Your task to perform on an android device: open app "eBay: The shopping marketplace" Image 0: 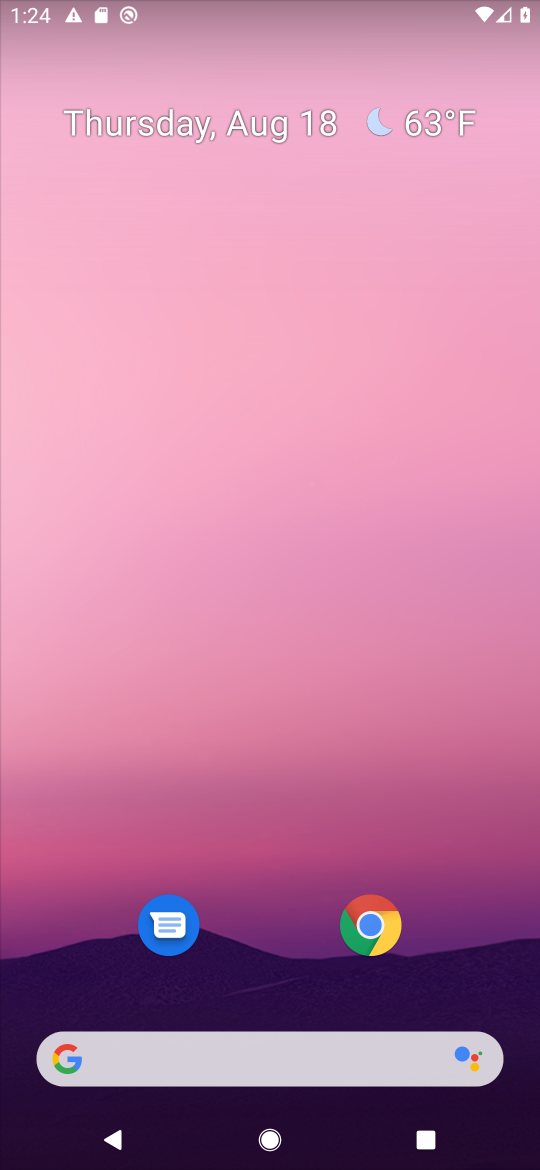
Step 0: click (270, 360)
Your task to perform on an android device: open app "eBay: The shopping marketplace" Image 1: 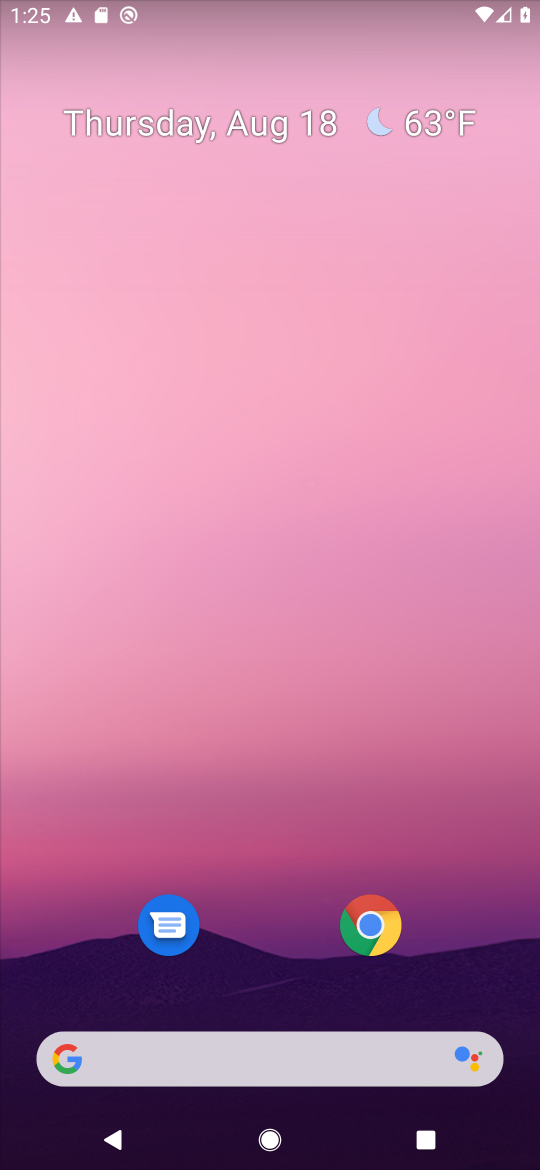
Step 1: drag from (279, 940) to (338, 13)
Your task to perform on an android device: open app "eBay: The shopping marketplace" Image 2: 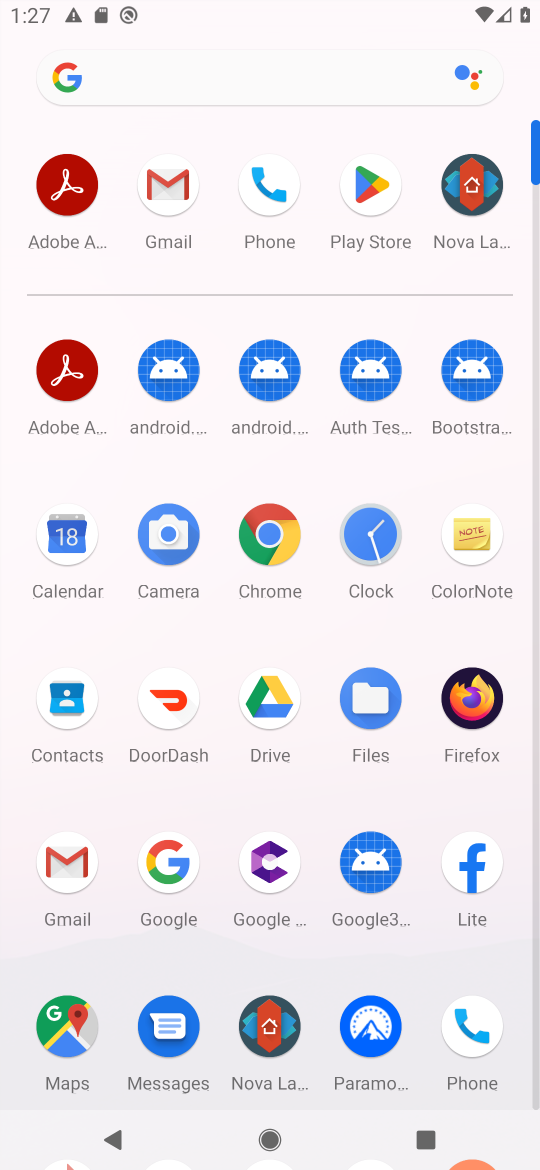
Step 2: click (368, 193)
Your task to perform on an android device: open app "eBay: The shopping marketplace" Image 3: 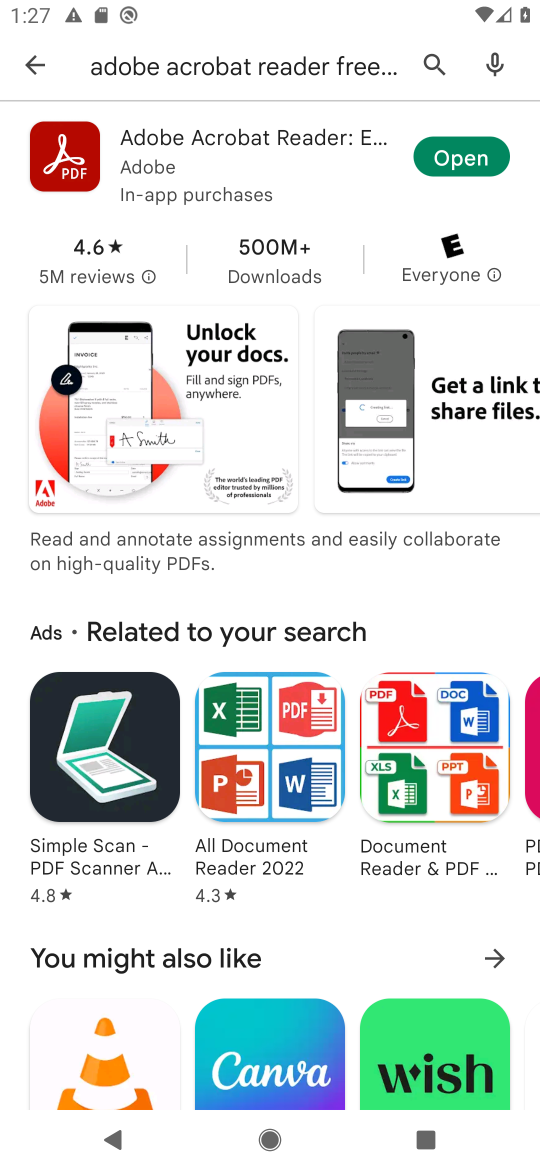
Step 3: click (45, 69)
Your task to perform on an android device: open app "eBay: The shopping marketplace" Image 4: 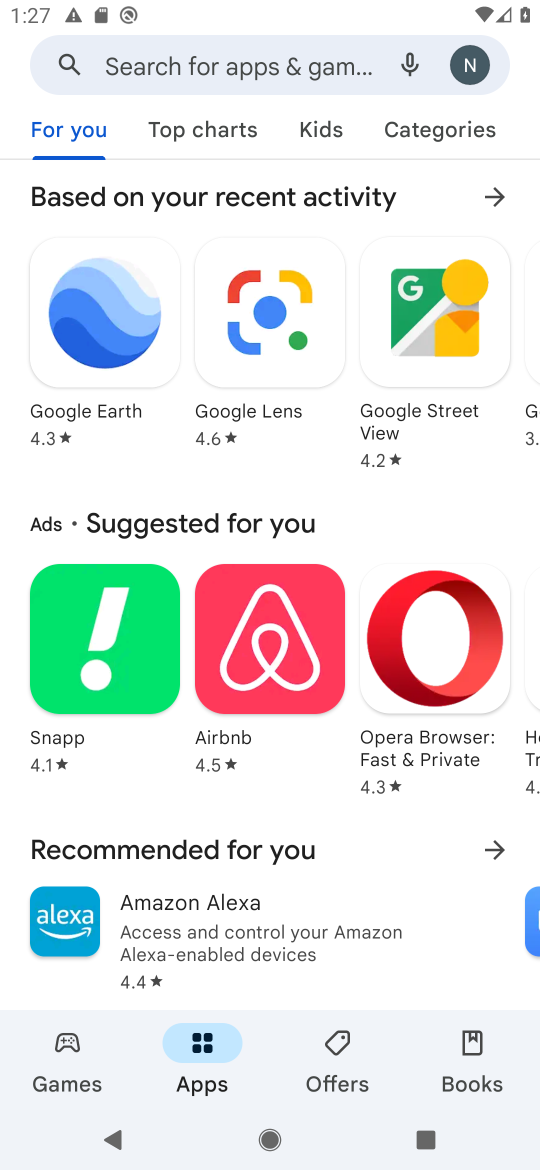
Step 4: click (161, 69)
Your task to perform on an android device: open app "eBay: The shopping marketplace" Image 5: 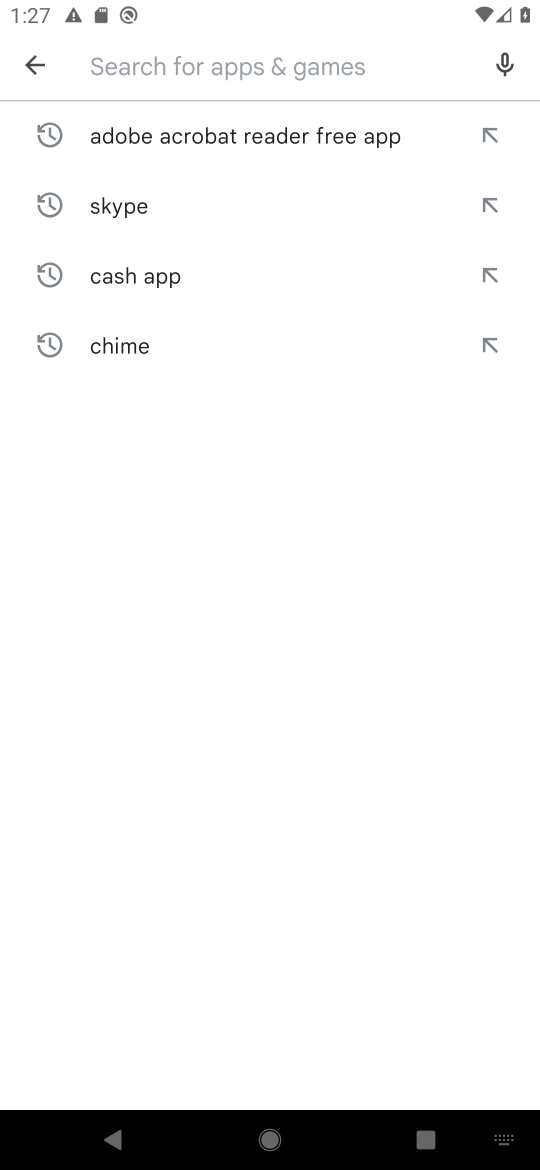
Step 5: type "ebay"
Your task to perform on an android device: open app "eBay: The shopping marketplace" Image 6: 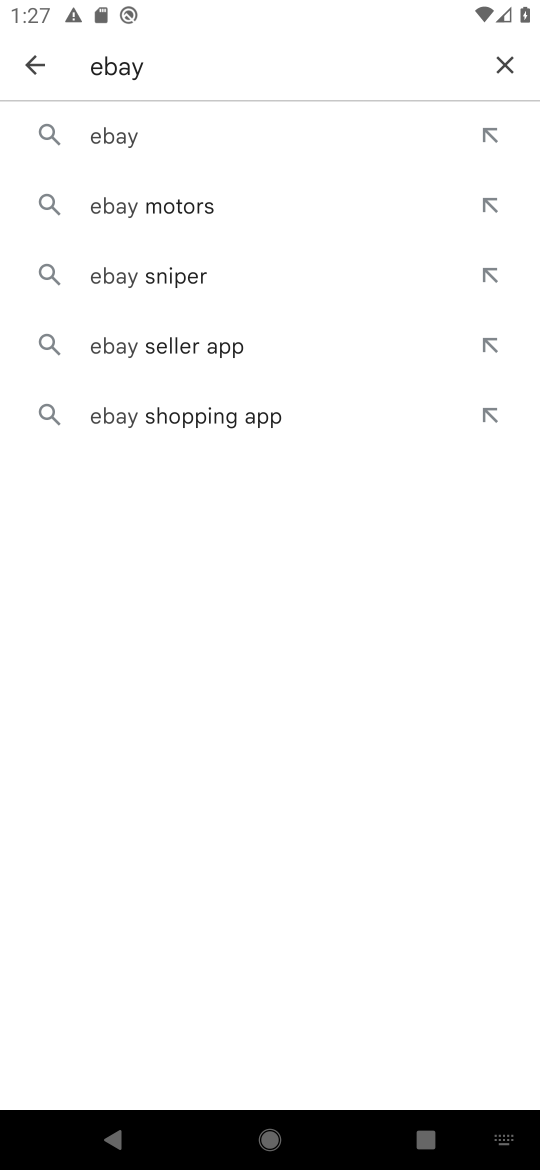
Step 6: click (89, 151)
Your task to perform on an android device: open app "eBay: The shopping marketplace" Image 7: 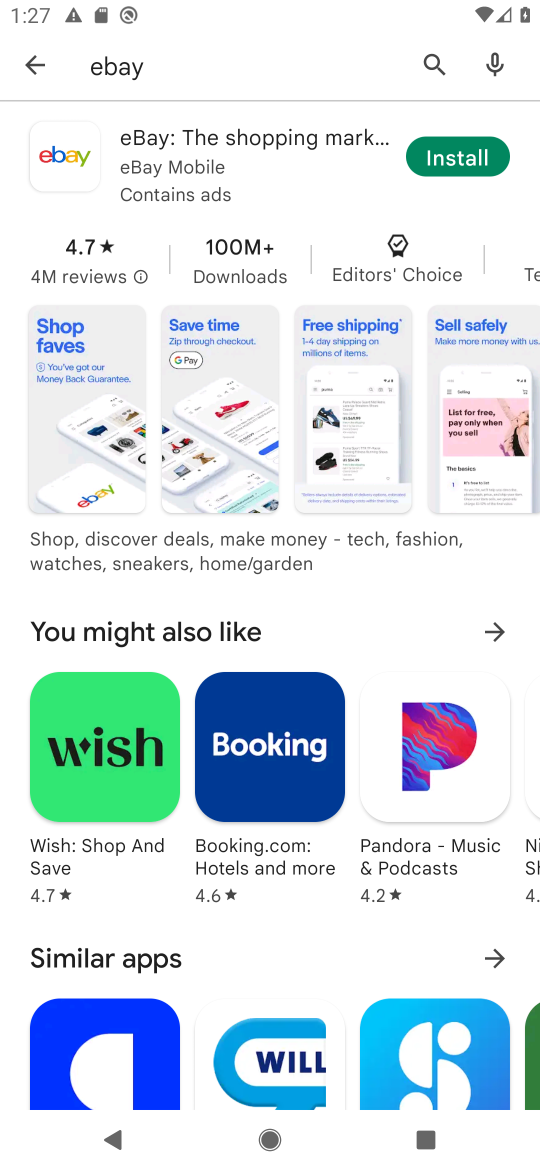
Step 7: click (435, 157)
Your task to perform on an android device: open app "eBay: The shopping marketplace" Image 8: 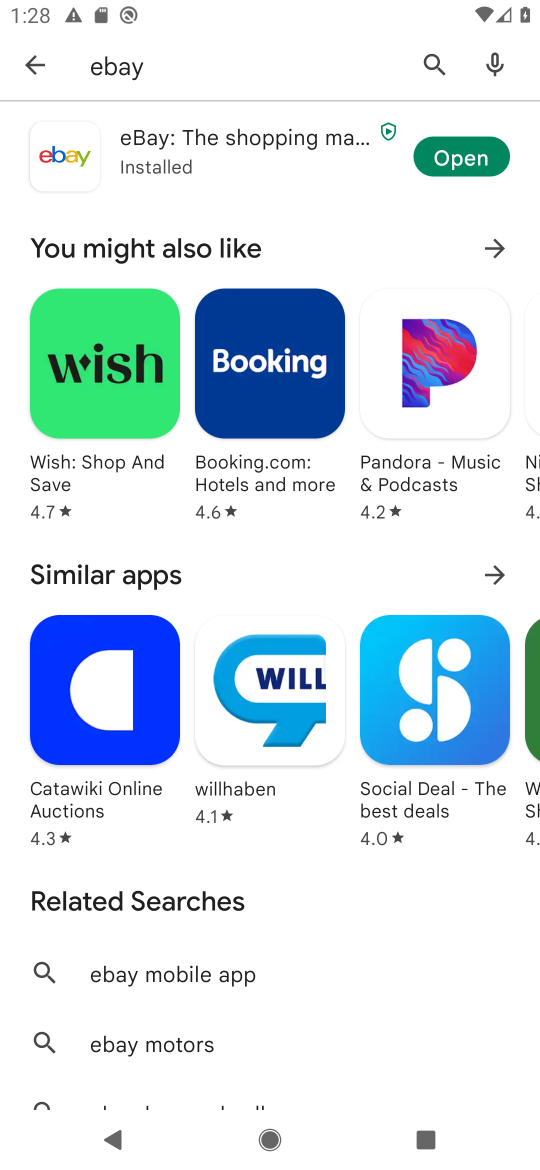
Step 8: click (435, 157)
Your task to perform on an android device: open app "eBay: The shopping marketplace" Image 9: 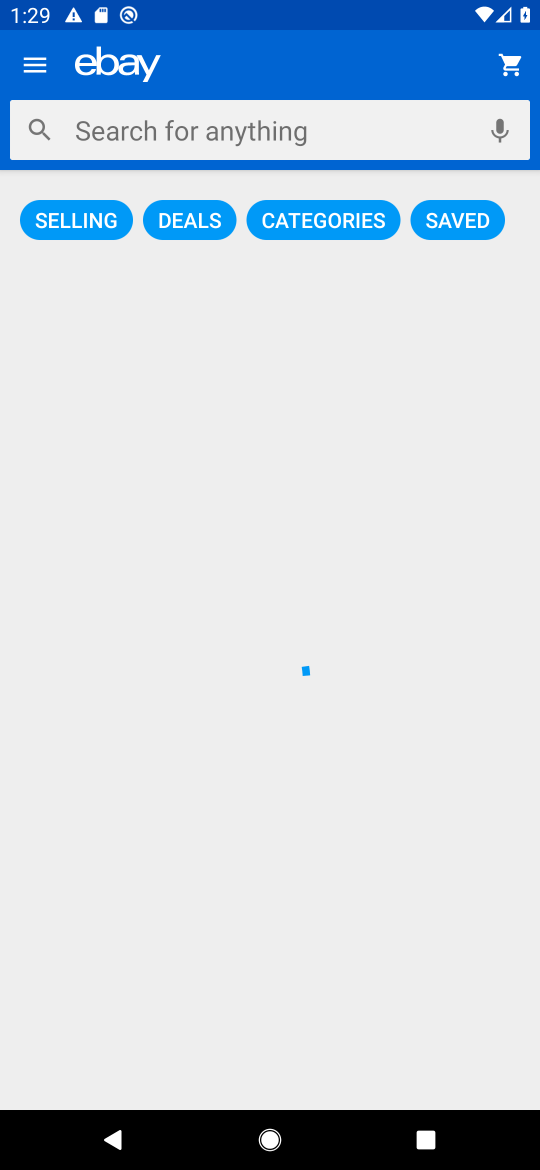
Step 9: task complete